Your task to perform on an android device: Open Yahoo.com Image 0: 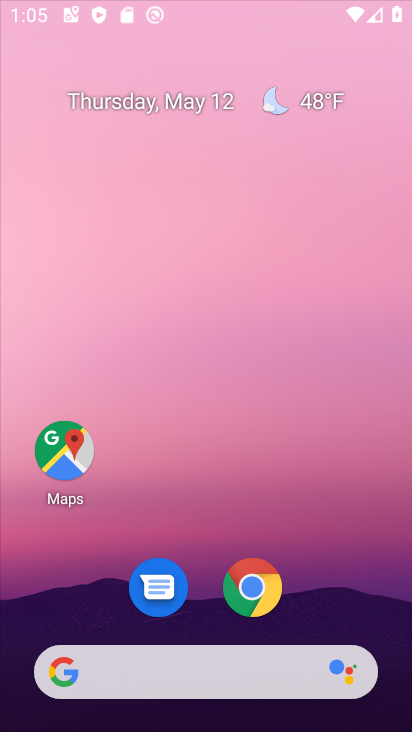
Step 0: drag from (182, 395) to (198, 221)
Your task to perform on an android device: Open Yahoo.com Image 1: 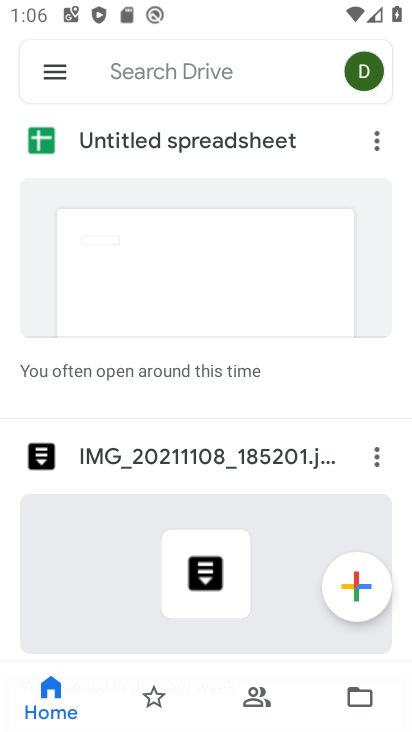
Step 1: press home button
Your task to perform on an android device: Open Yahoo.com Image 2: 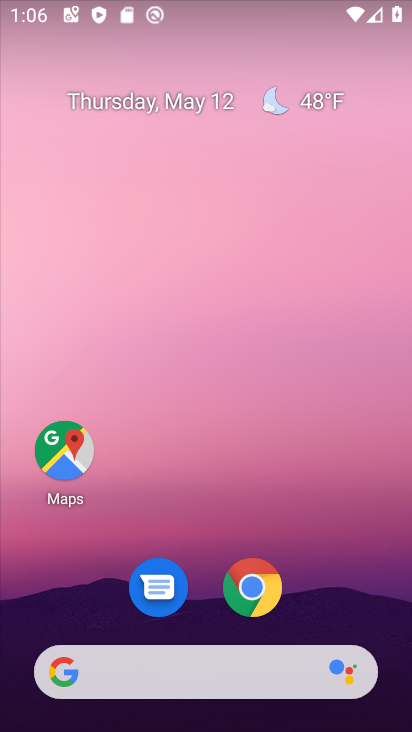
Step 2: click (250, 600)
Your task to perform on an android device: Open Yahoo.com Image 3: 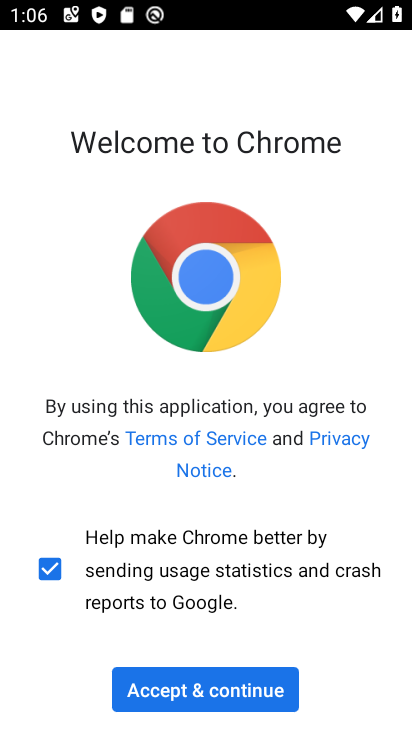
Step 3: click (232, 683)
Your task to perform on an android device: Open Yahoo.com Image 4: 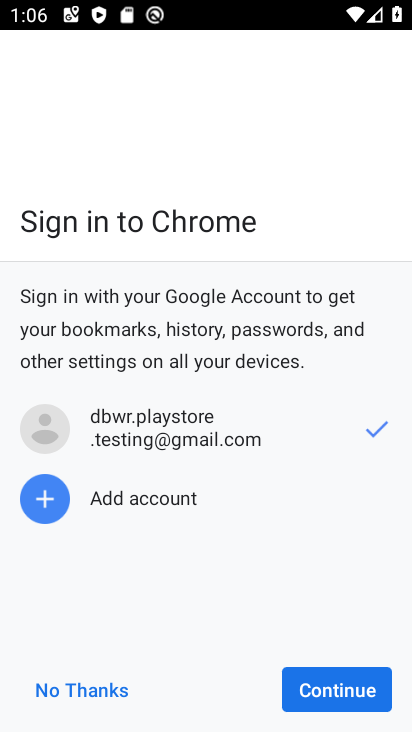
Step 4: click (321, 680)
Your task to perform on an android device: Open Yahoo.com Image 5: 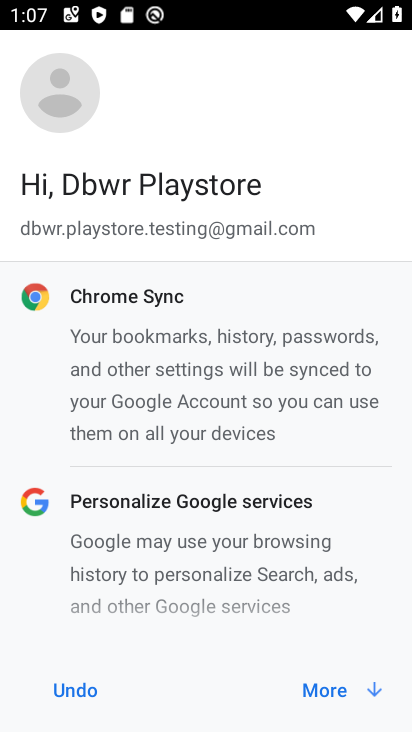
Step 5: click (342, 680)
Your task to perform on an android device: Open Yahoo.com Image 6: 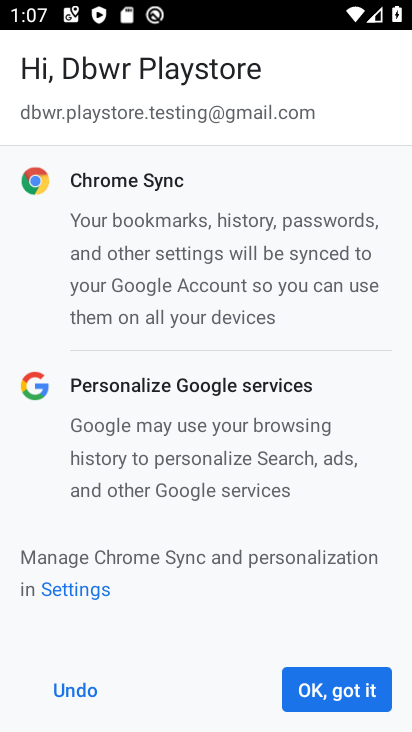
Step 6: click (315, 702)
Your task to perform on an android device: Open Yahoo.com Image 7: 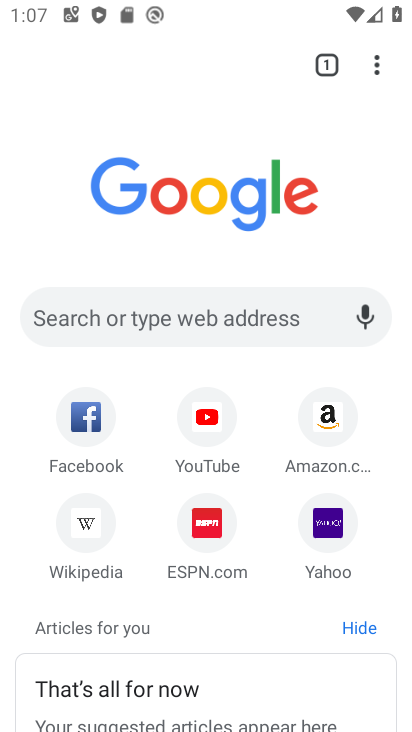
Step 7: click (256, 315)
Your task to perform on an android device: Open Yahoo.com Image 8: 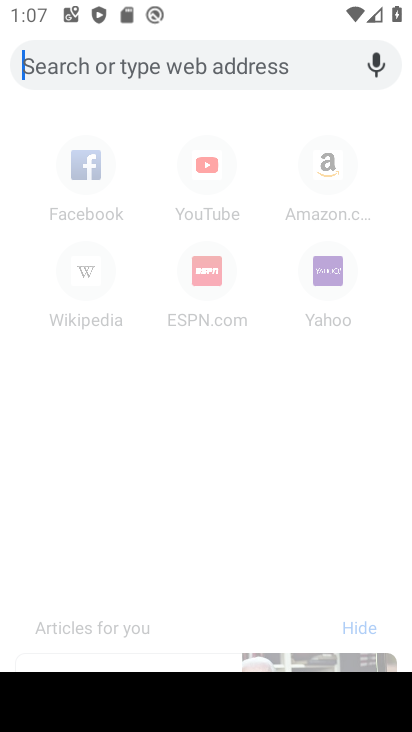
Step 8: type "yahoo.com"
Your task to perform on an android device: Open Yahoo.com Image 9: 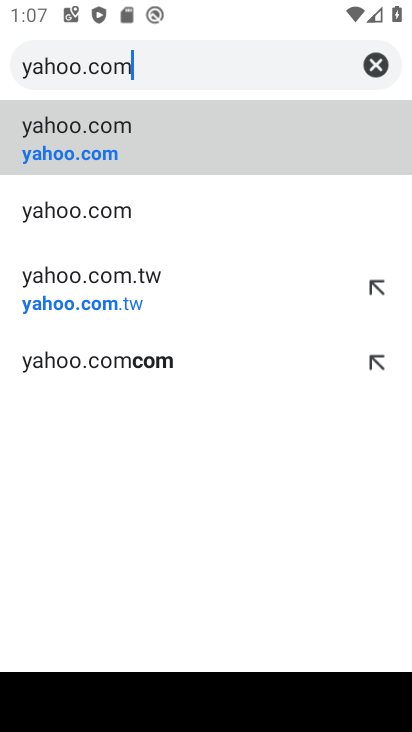
Step 9: click (227, 142)
Your task to perform on an android device: Open Yahoo.com Image 10: 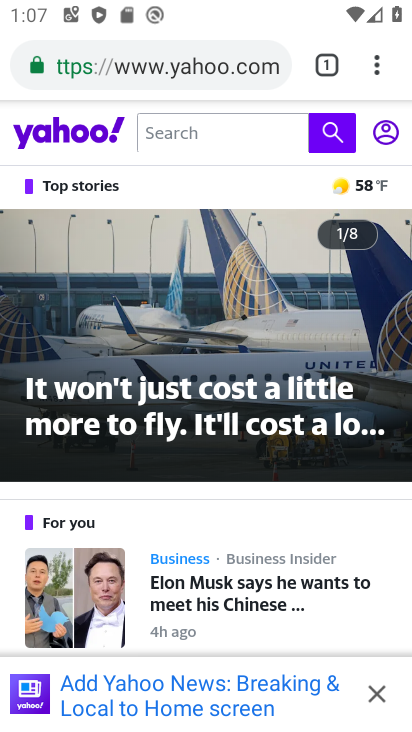
Step 10: task complete